Your task to perform on an android device: Turn on the flashlight Image 0: 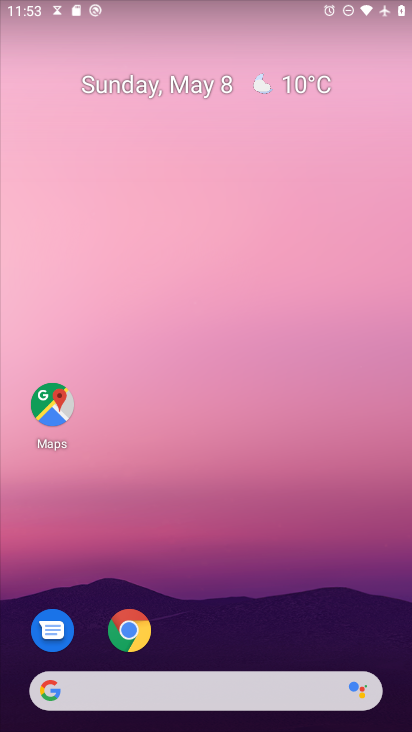
Step 0: drag from (262, 5) to (285, 447)
Your task to perform on an android device: Turn on the flashlight Image 1: 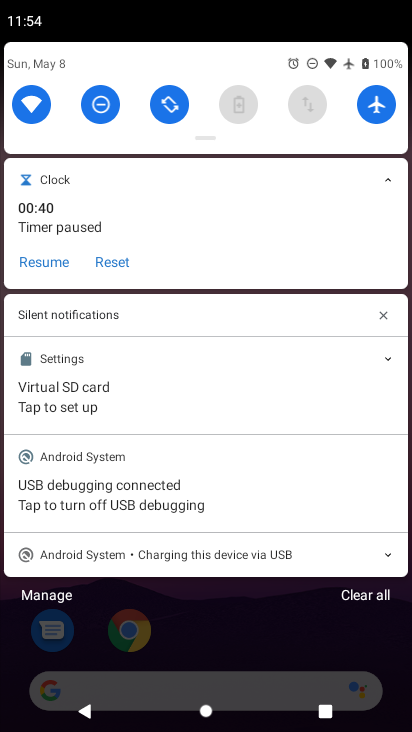
Step 1: task complete